Your task to perform on an android device: change the clock display to show seconds Image 0: 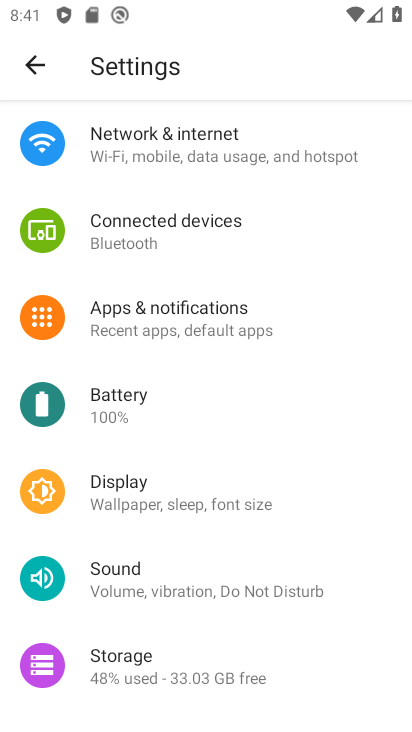
Step 0: press home button
Your task to perform on an android device: change the clock display to show seconds Image 1: 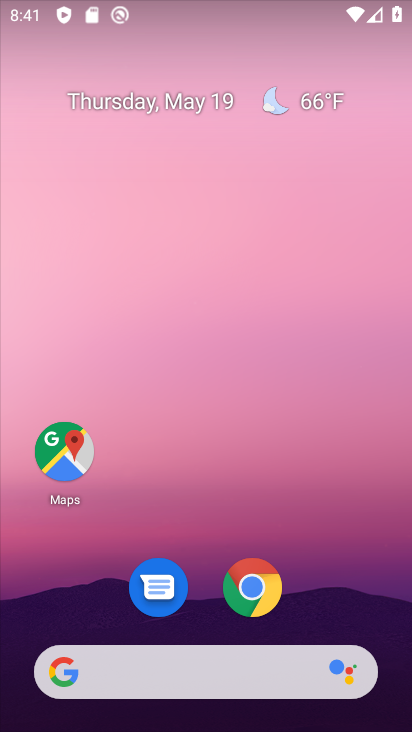
Step 1: drag from (231, 712) to (162, 251)
Your task to perform on an android device: change the clock display to show seconds Image 2: 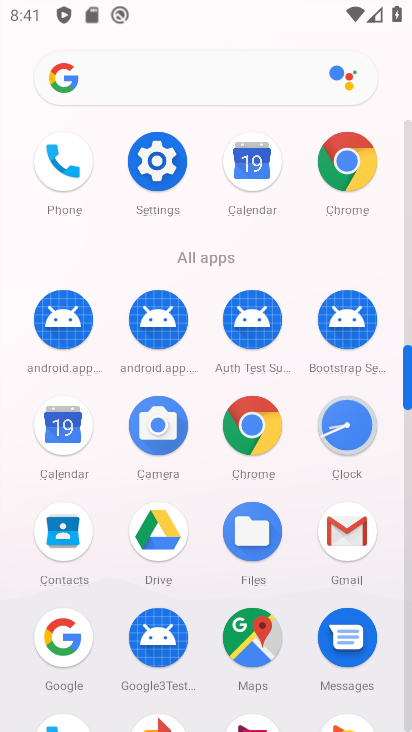
Step 2: click (362, 424)
Your task to perform on an android device: change the clock display to show seconds Image 3: 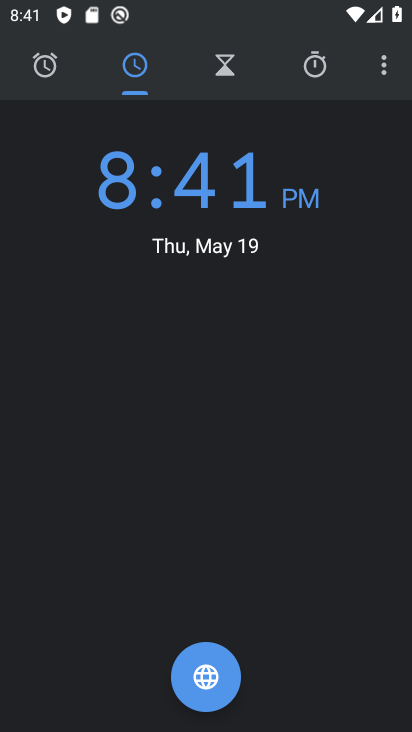
Step 3: click (378, 72)
Your task to perform on an android device: change the clock display to show seconds Image 4: 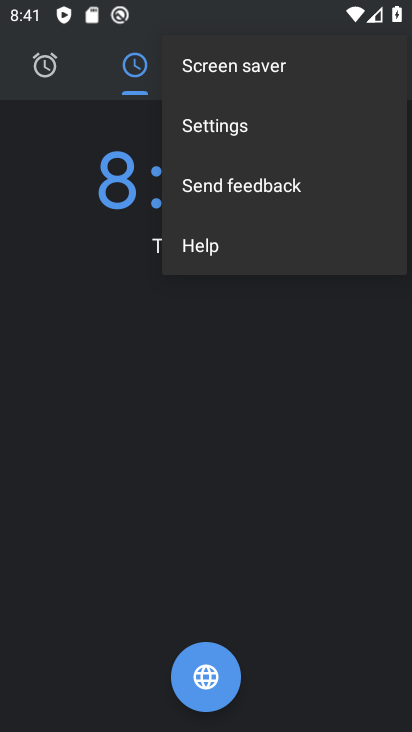
Step 4: click (276, 129)
Your task to perform on an android device: change the clock display to show seconds Image 5: 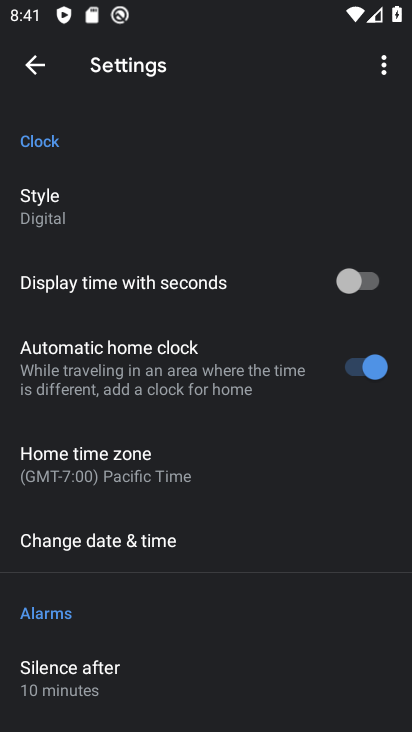
Step 5: click (284, 283)
Your task to perform on an android device: change the clock display to show seconds Image 6: 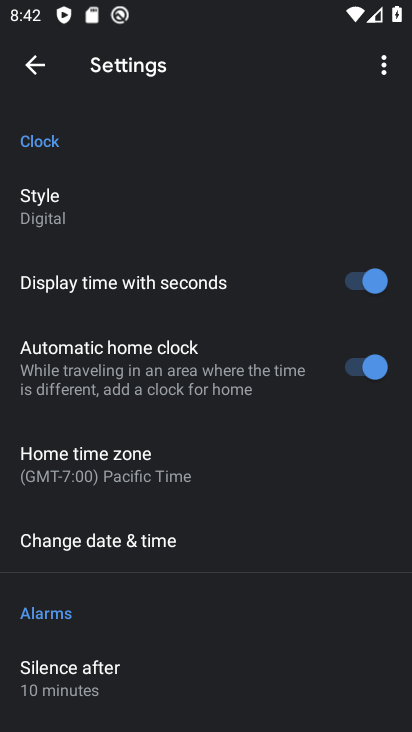
Step 6: task complete